Your task to perform on an android device: change timer sound Image 0: 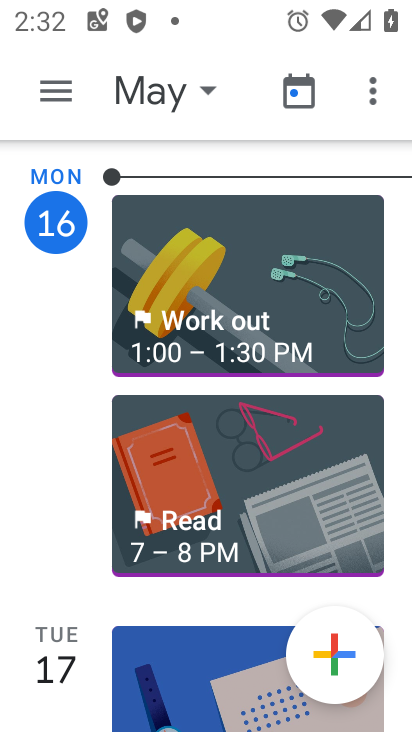
Step 0: press home button
Your task to perform on an android device: change timer sound Image 1: 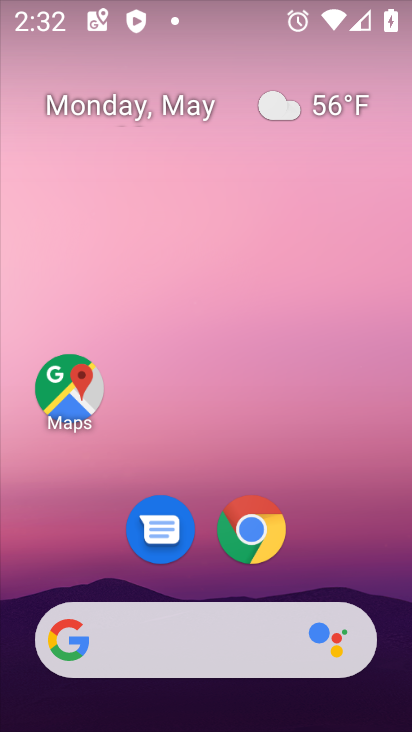
Step 1: drag from (332, 555) to (330, 130)
Your task to perform on an android device: change timer sound Image 2: 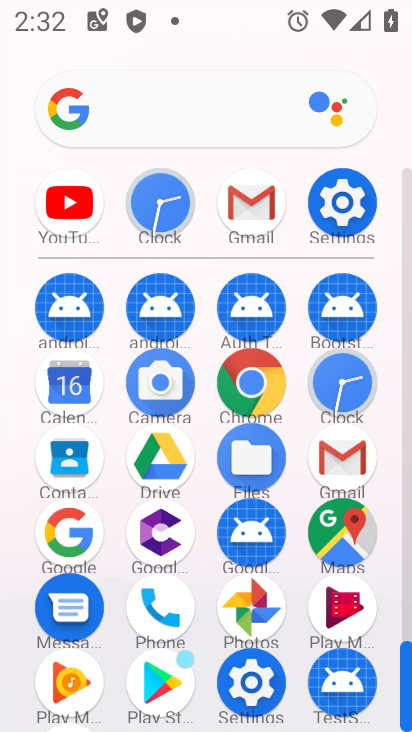
Step 2: click (354, 395)
Your task to perform on an android device: change timer sound Image 3: 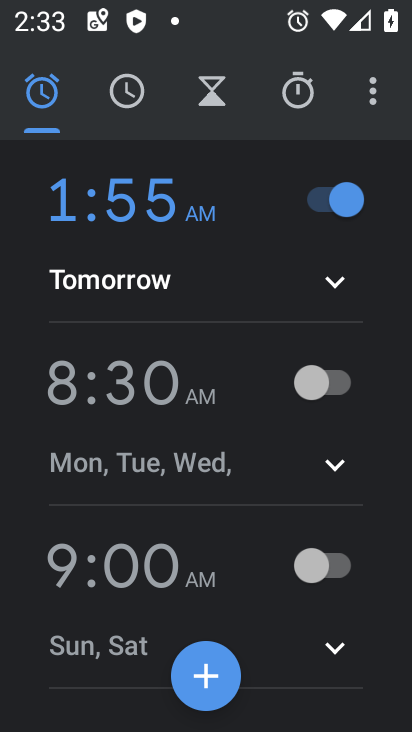
Step 3: click (363, 87)
Your task to perform on an android device: change timer sound Image 4: 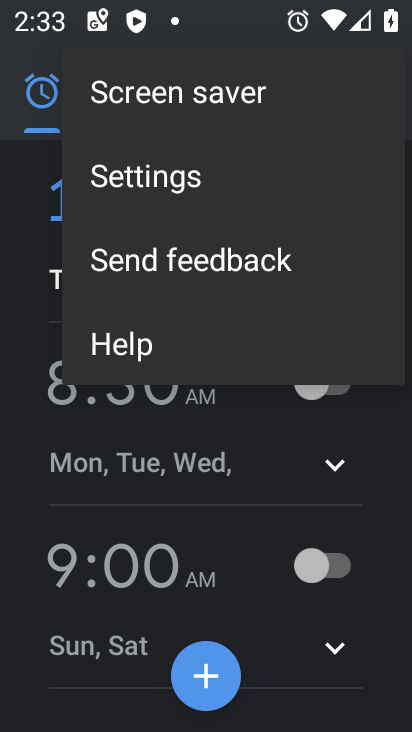
Step 4: click (259, 188)
Your task to perform on an android device: change timer sound Image 5: 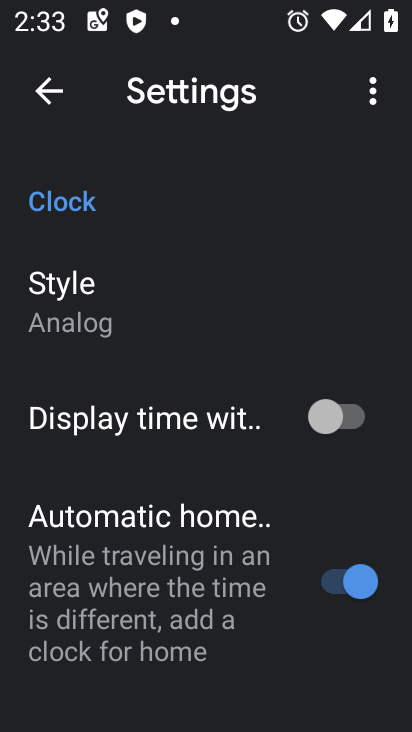
Step 5: drag from (181, 636) to (206, 229)
Your task to perform on an android device: change timer sound Image 6: 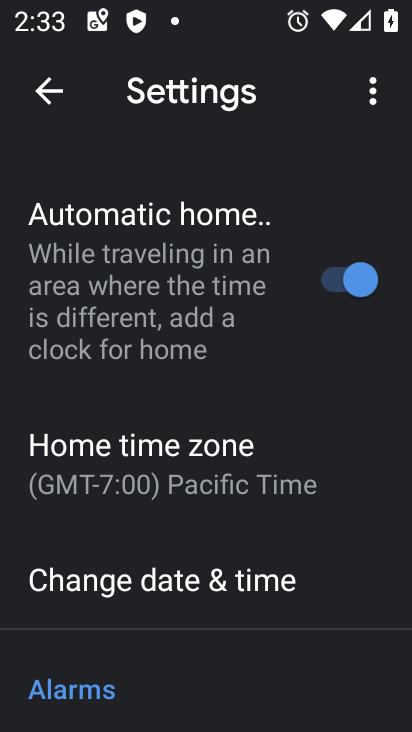
Step 6: drag from (218, 640) to (186, 328)
Your task to perform on an android device: change timer sound Image 7: 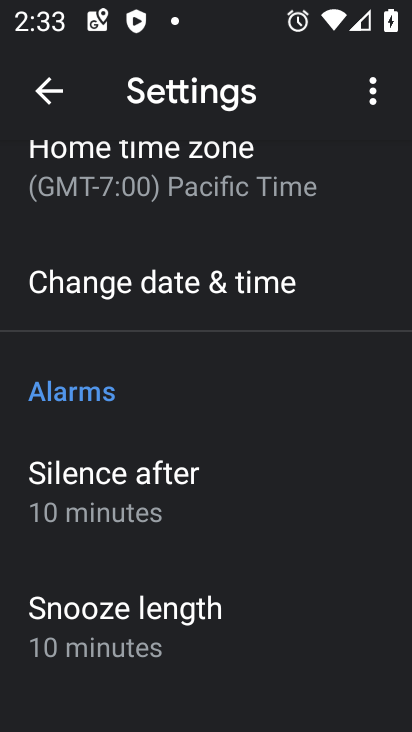
Step 7: drag from (146, 621) to (188, 285)
Your task to perform on an android device: change timer sound Image 8: 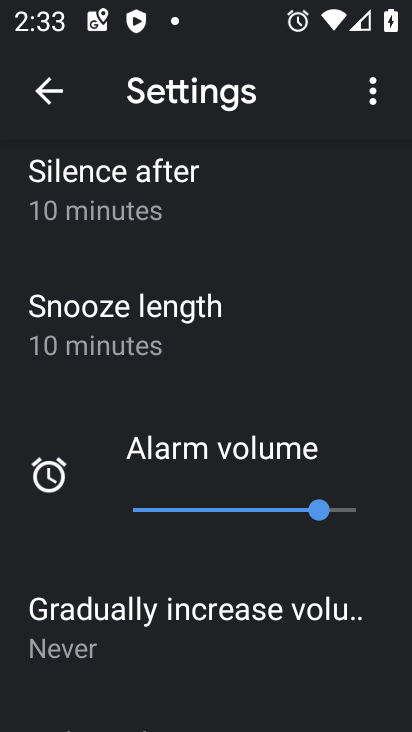
Step 8: drag from (227, 664) to (183, 395)
Your task to perform on an android device: change timer sound Image 9: 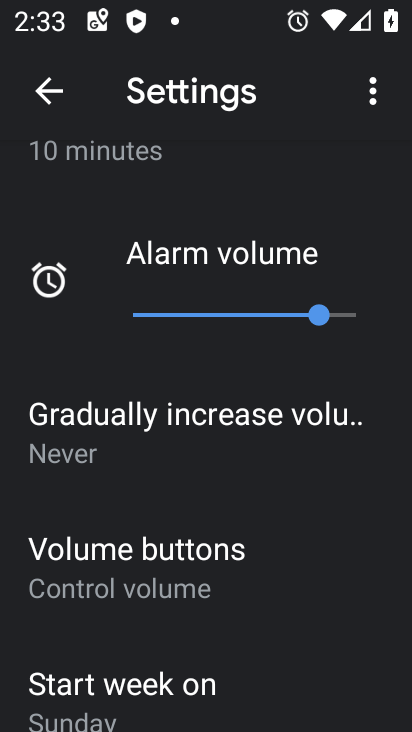
Step 9: drag from (216, 664) to (213, 361)
Your task to perform on an android device: change timer sound Image 10: 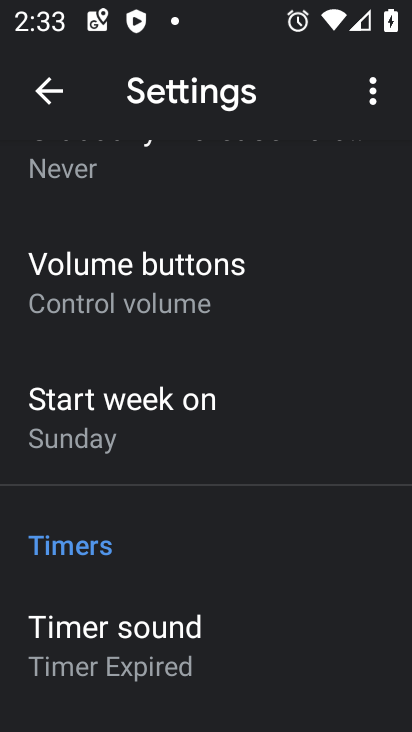
Step 10: click (221, 627)
Your task to perform on an android device: change timer sound Image 11: 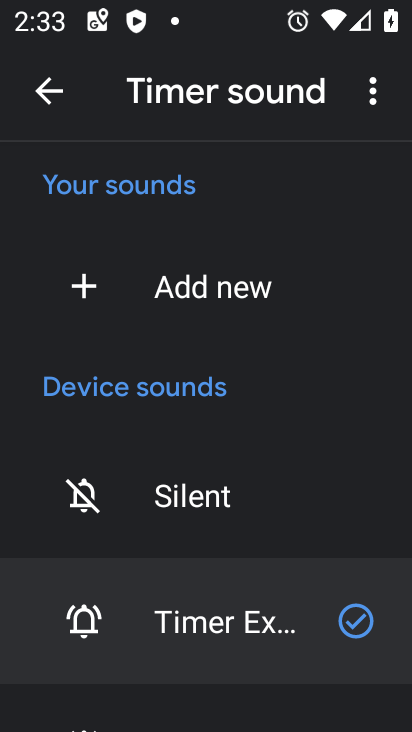
Step 11: drag from (173, 628) to (152, 335)
Your task to perform on an android device: change timer sound Image 12: 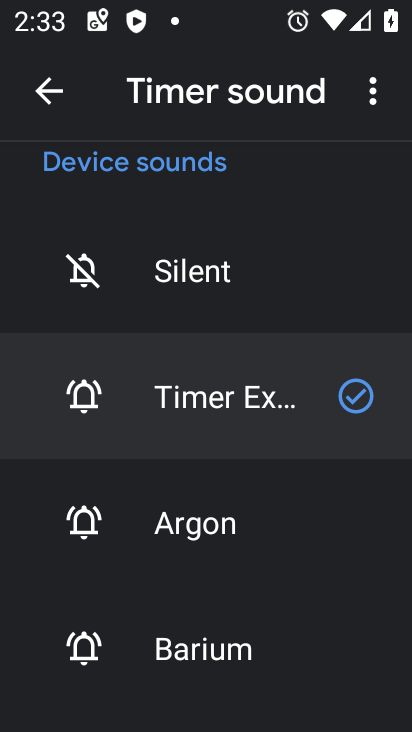
Step 12: drag from (247, 644) to (260, 314)
Your task to perform on an android device: change timer sound Image 13: 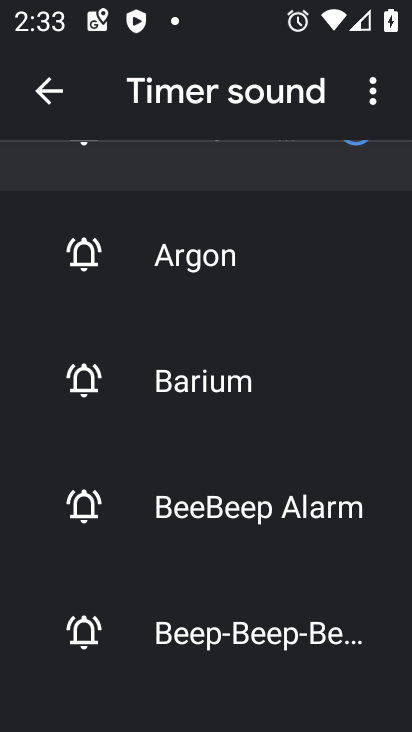
Step 13: click (215, 398)
Your task to perform on an android device: change timer sound Image 14: 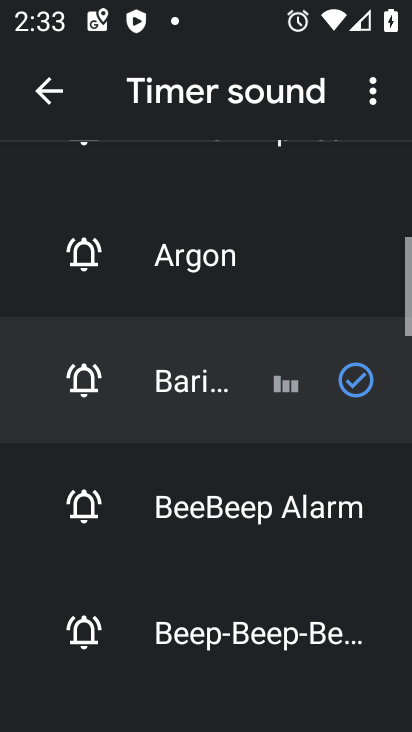
Step 14: task complete